Your task to perform on an android device: Go to Wikipedia Image 0: 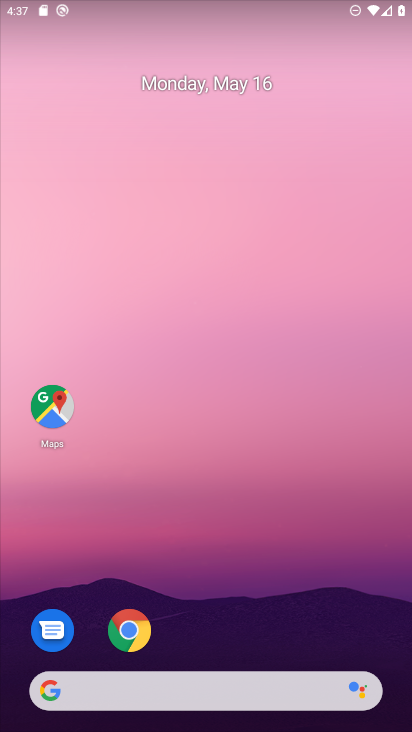
Step 0: press home button
Your task to perform on an android device: Go to Wikipedia Image 1: 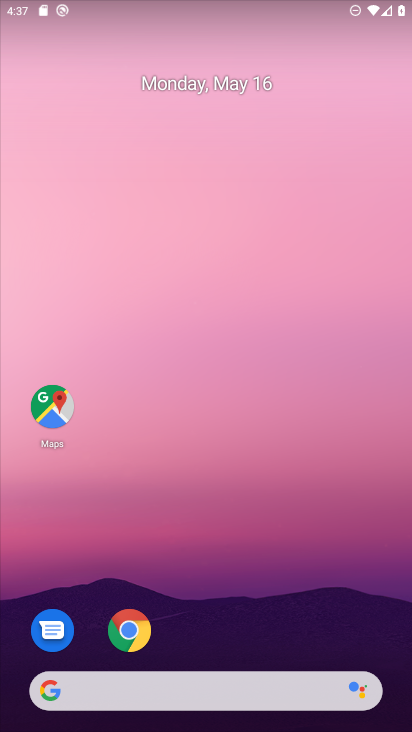
Step 1: drag from (288, 582) to (409, 171)
Your task to perform on an android device: Go to Wikipedia Image 2: 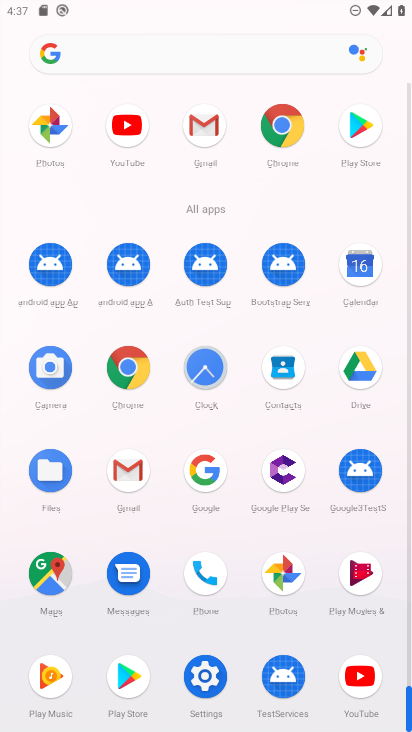
Step 2: click (124, 383)
Your task to perform on an android device: Go to Wikipedia Image 3: 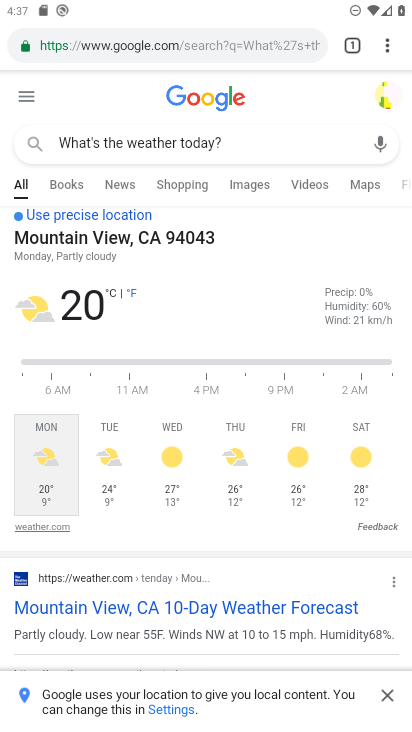
Step 3: click (235, 39)
Your task to perform on an android device: Go to Wikipedia Image 4: 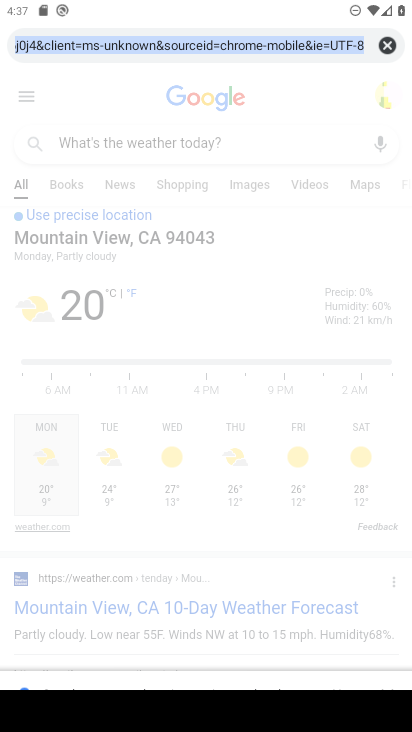
Step 4: click (235, 39)
Your task to perform on an android device: Go to Wikipedia Image 5: 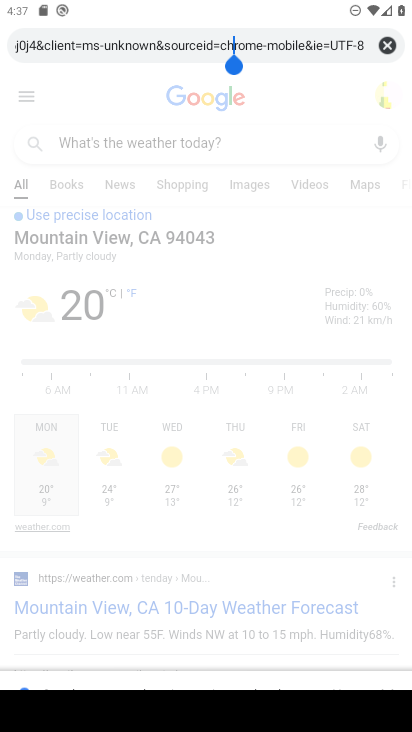
Step 5: click (382, 46)
Your task to perform on an android device: Go to Wikipedia Image 6: 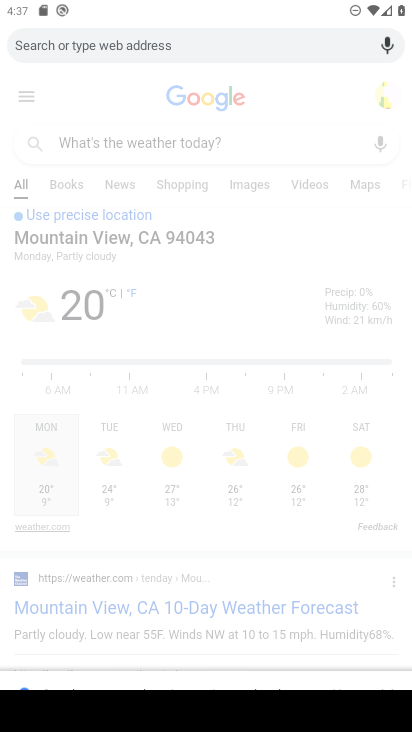
Step 6: click (183, 46)
Your task to perform on an android device: Go to Wikipedia Image 7: 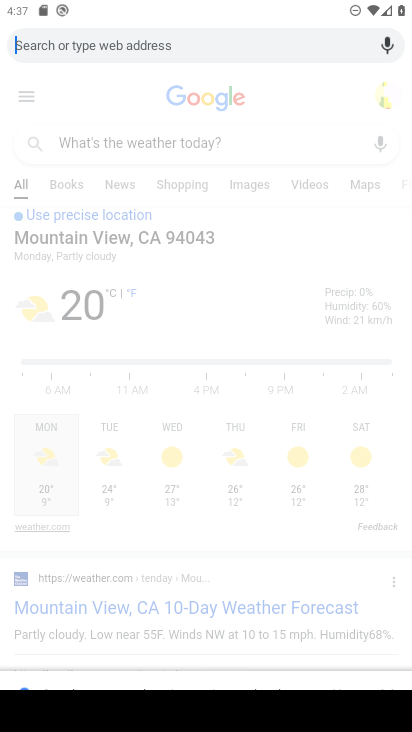
Step 7: click (193, 46)
Your task to perform on an android device: Go to Wikipedia Image 8: 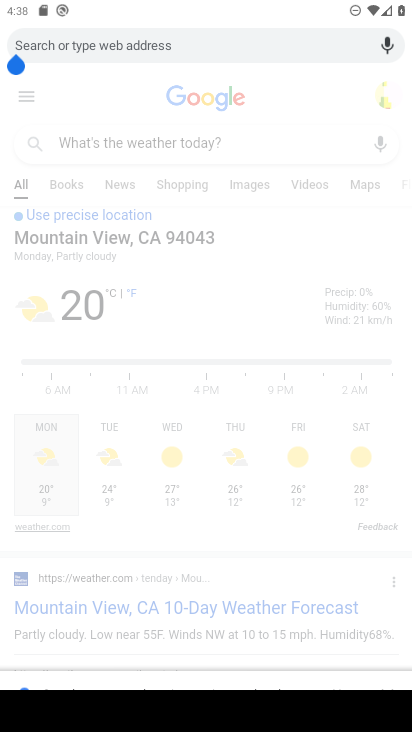
Step 8: click (193, 46)
Your task to perform on an android device: Go to Wikipedia Image 9: 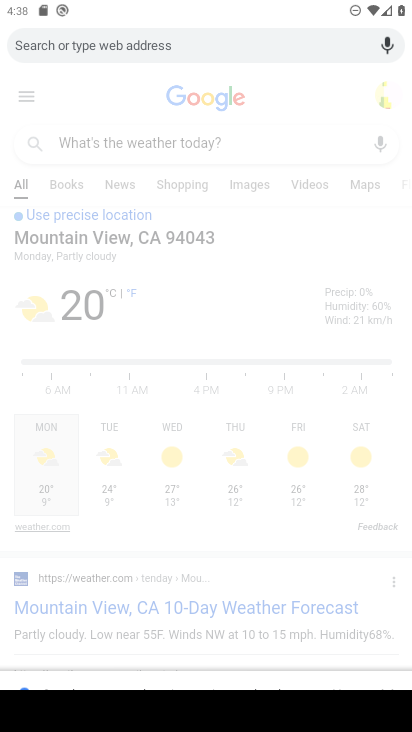
Step 9: type "Wikipedia"
Your task to perform on an android device: Go to Wikipedia Image 10: 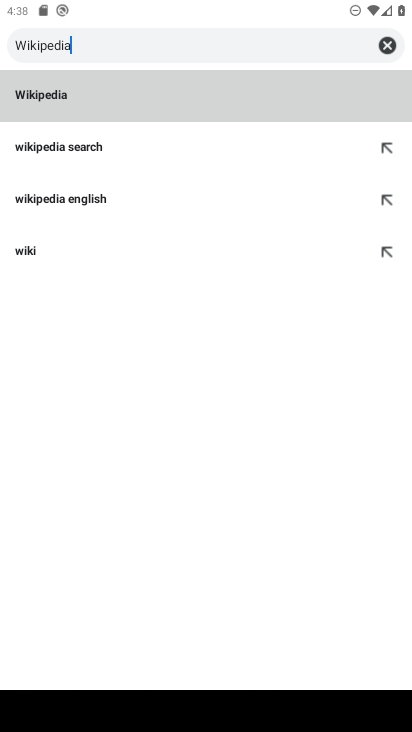
Step 10: type ""
Your task to perform on an android device: Go to Wikipedia Image 11: 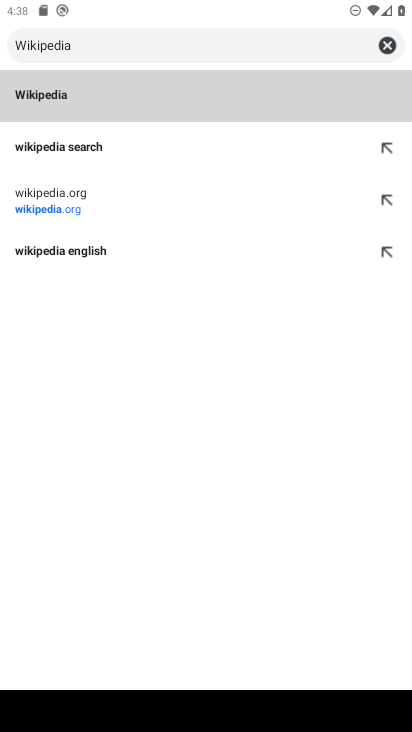
Step 11: click (70, 84)
Your task to perform on an android device: Go to Wikipedia Image 12: 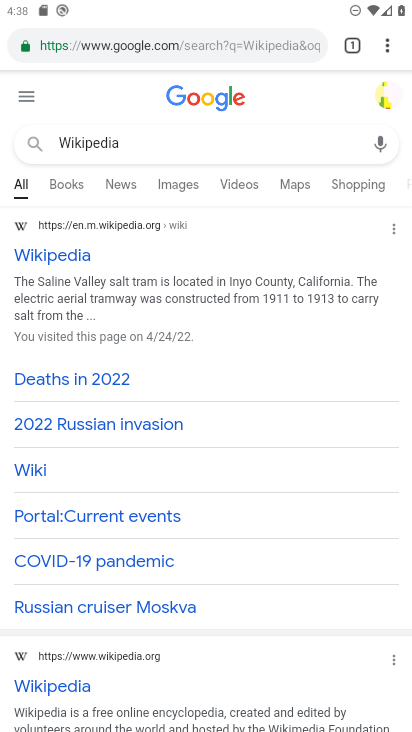
Step 12: click (64, 234)
Your task to perform on an android device: Go to Wikipedia Image 13: 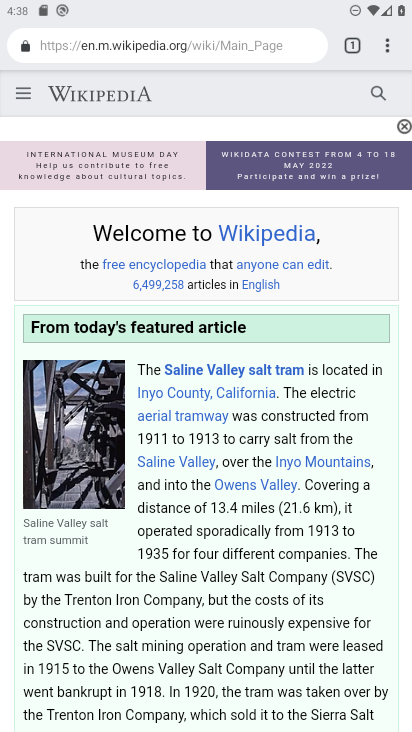
Step 13: task complete